Your task to perform on an android device: Go to Google Image 0: 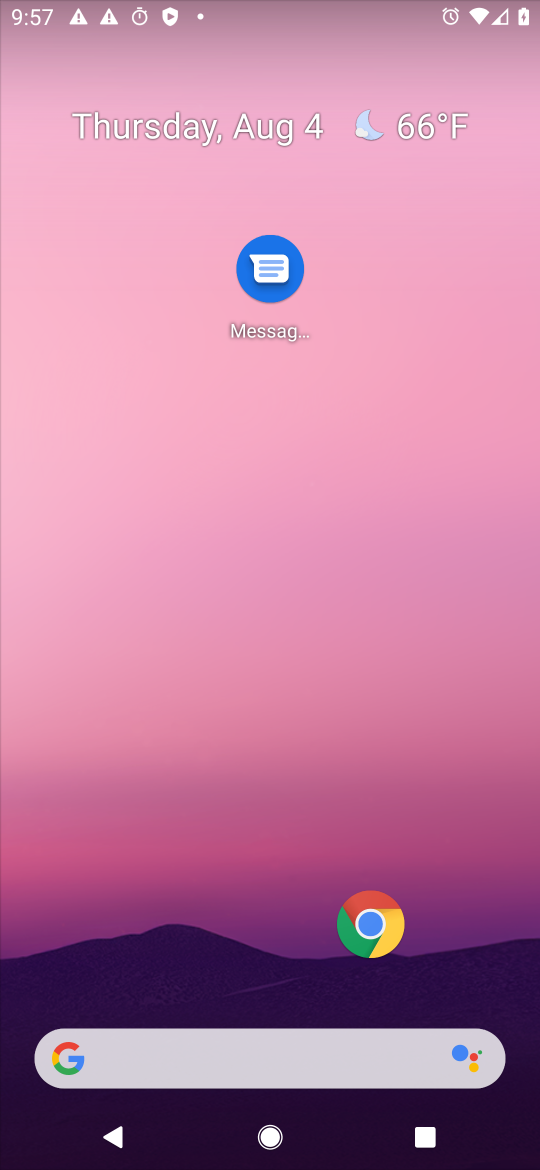
Step 0: drag from (288, 962) to (378, 275)
Your task to perform on an android device: Go to Google Image 1: 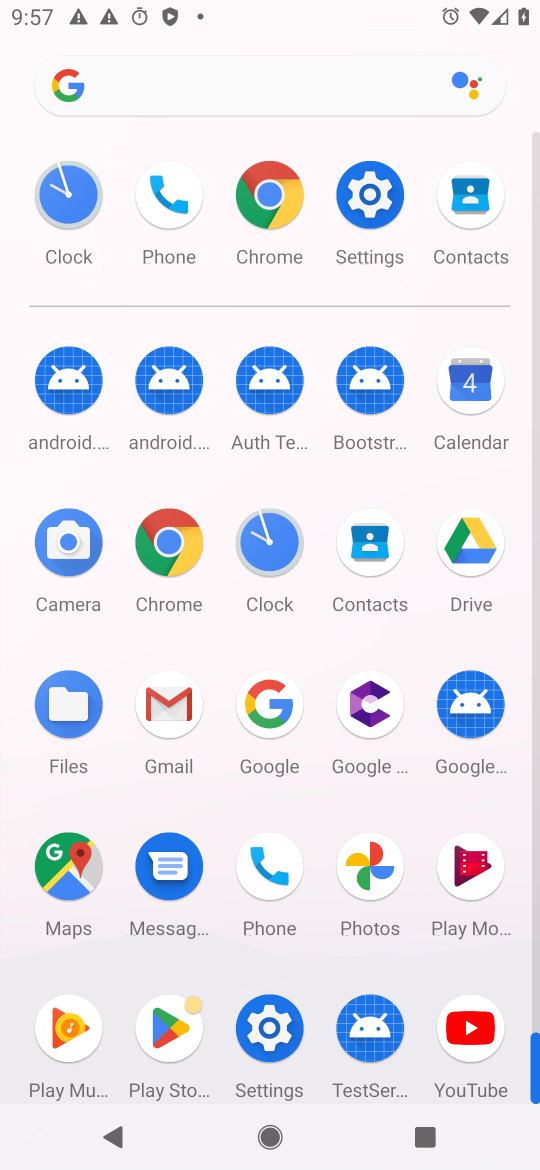
Step 1: click (255, 700)
Your task to perform on an android device: Go to Google Image 2: 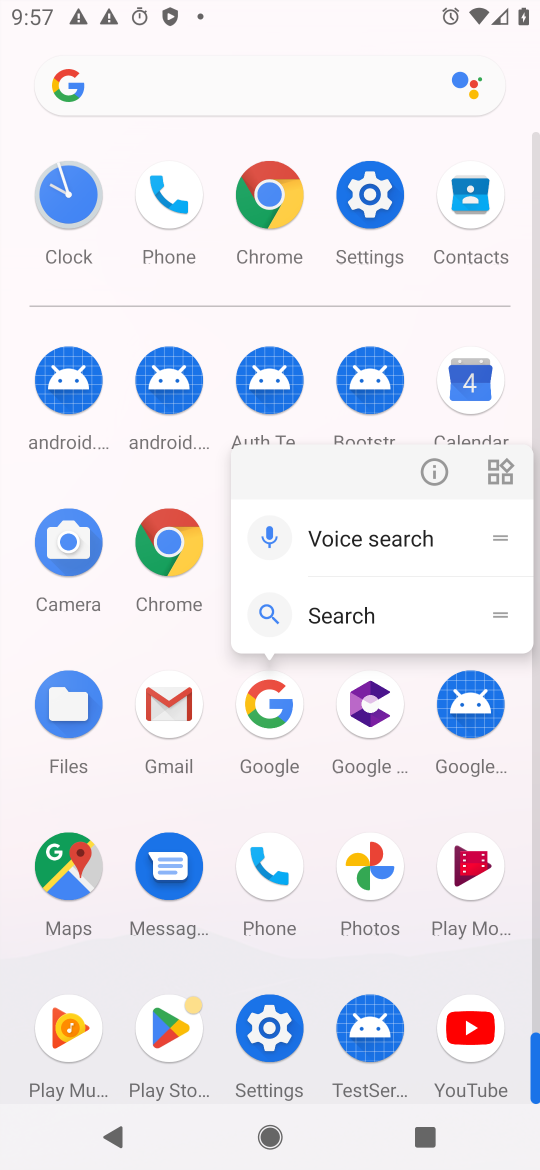
Step 2: click (440, 472)
Your task to perform on an android device: Go to Google Image 3: 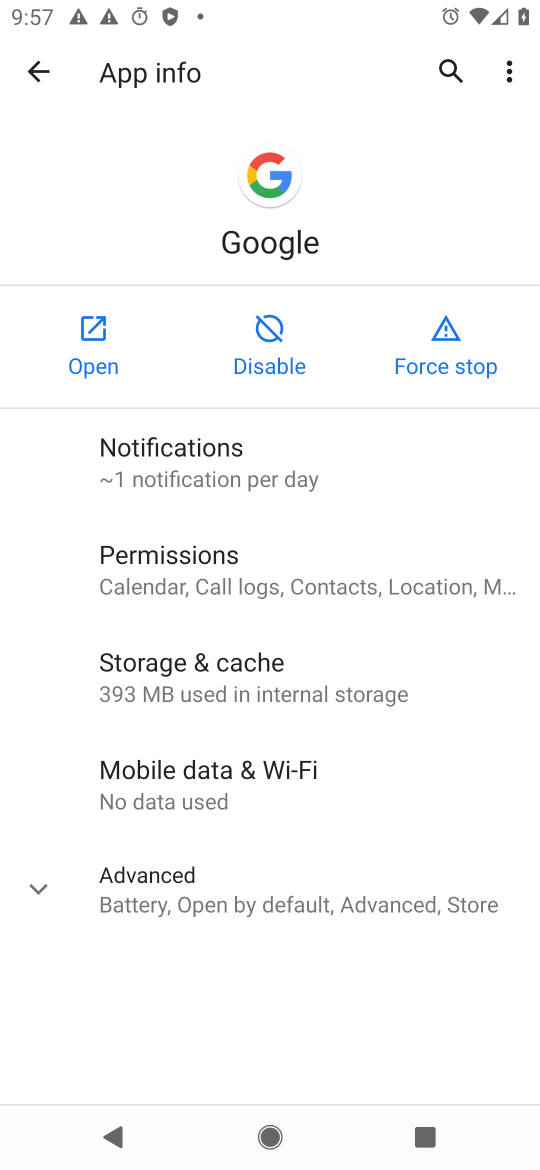
Step 3: click (98, 341)
Your task to perform on an android device: Go to Google Image 4: 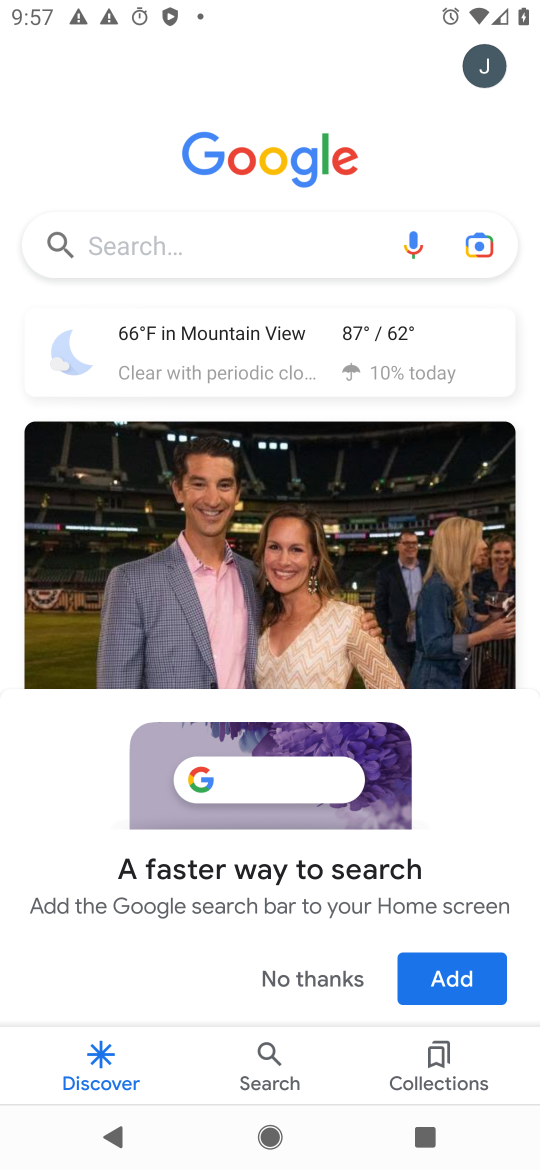
Step 4: task complete